Your task to perform on an android device: Open Android settings Image 0: 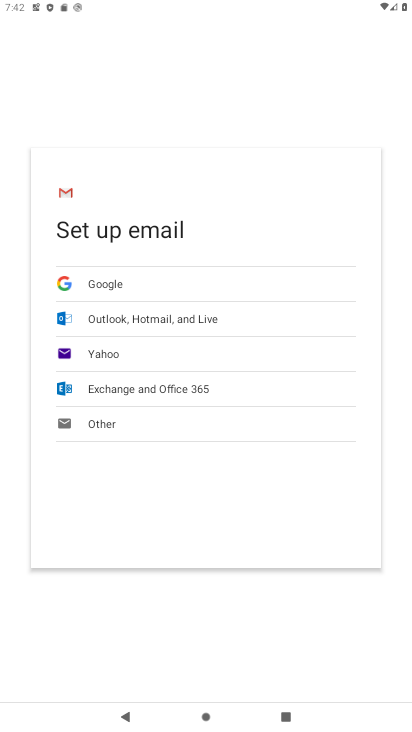
Step 0: press home button
Your task to perform on an android device: Open Android settings Image 1: 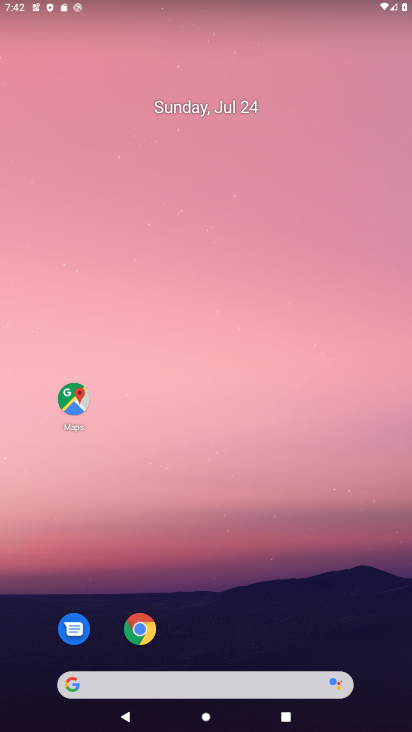
Step 1: drag from (366, 618) to (369, 117)
Your task to perform on an android device: Open Android settings Image 2: 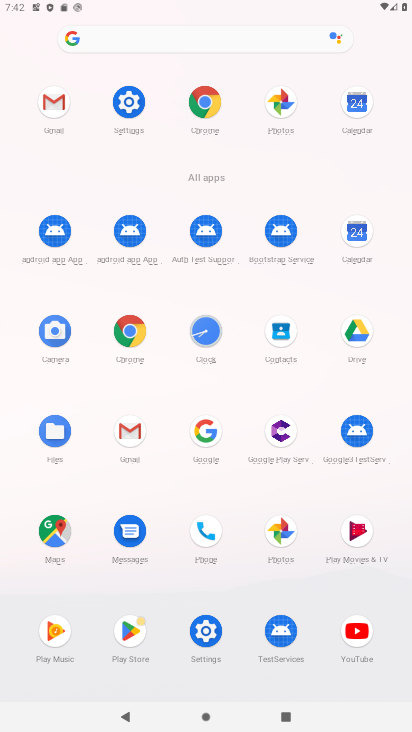
Step 2: click (126, 110)
Your task to perform on an android device: Open Android settings Image 3: 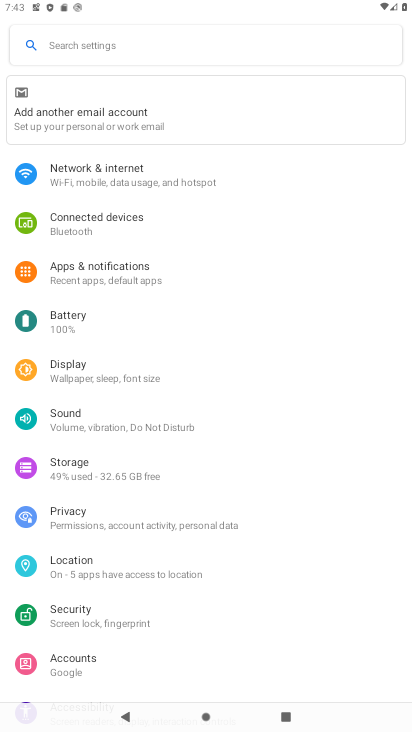
Step 3: drag from (325, 408) to (337, 337)
Your task to perform on an android device: Open Android settings Image 4: 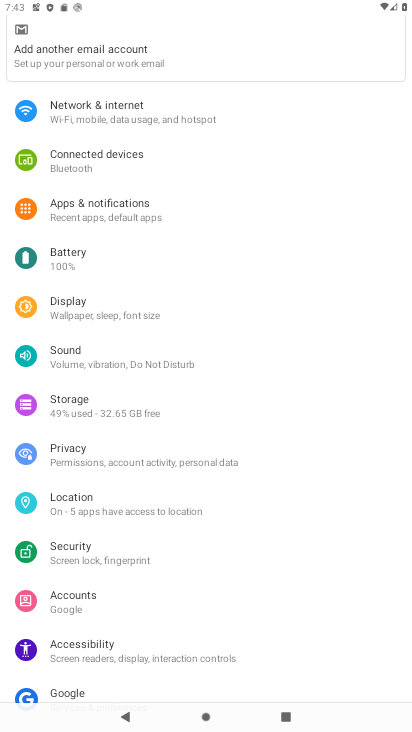
Step 4: drag from (349, 458) to (344, 354)
Your task to perform on an android device: Open Android settings Image 5: 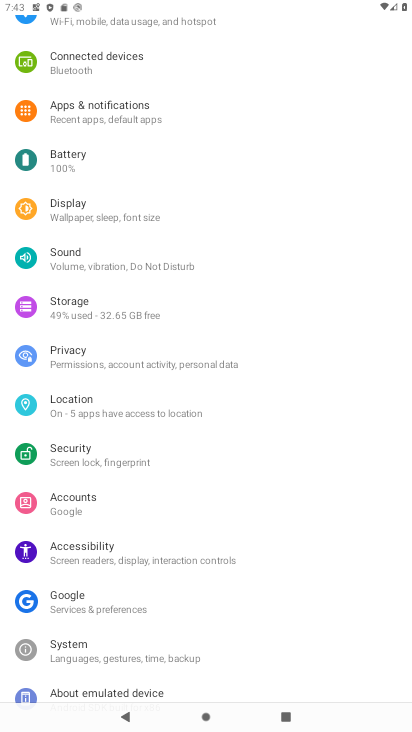
Step 5: drag from (333, 498) to (331, 342)
Your task to perform on an android device: Open Android settings Image 6: 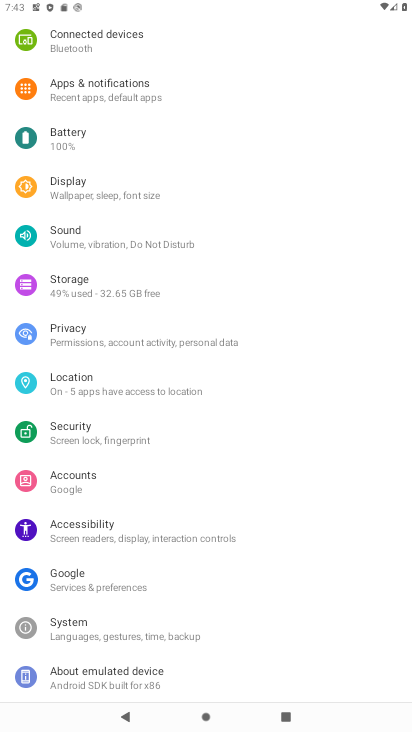
Step 6: click (277, 635)
Your task to perform on an android device: Open Android settings Image 7: 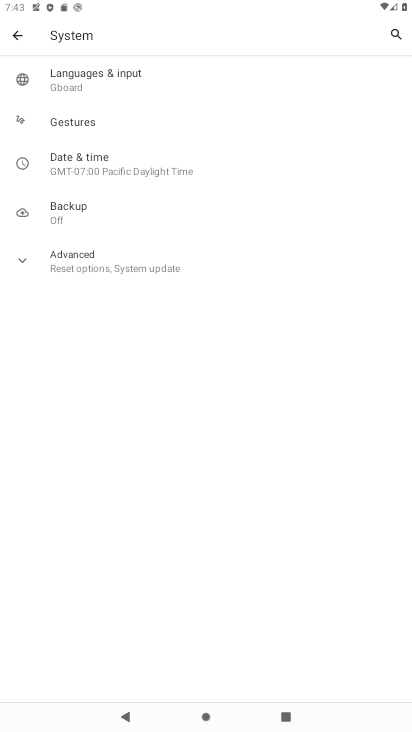
Step 7: click (169, 260)
Your task to perform on an android device: Open Android settings Image 8: 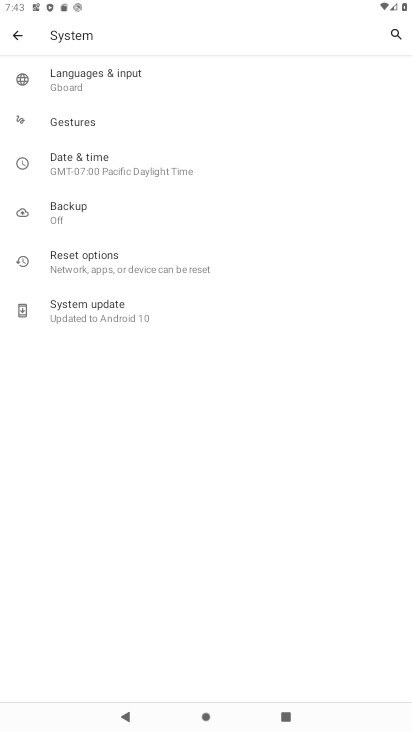
Step 8: task complete